Your task to perform on an android device: toggle improve location accuracy Image 0: 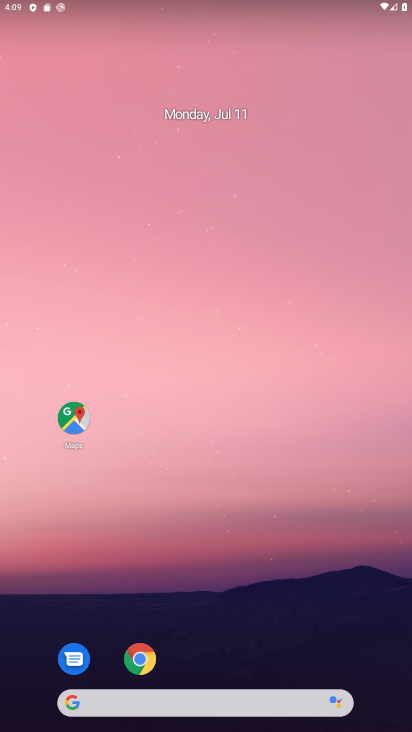
Step 0: drag from (312, 7) to (277, 664)
Your task to perform on an android device: toggle improve location accuracy Image 1: 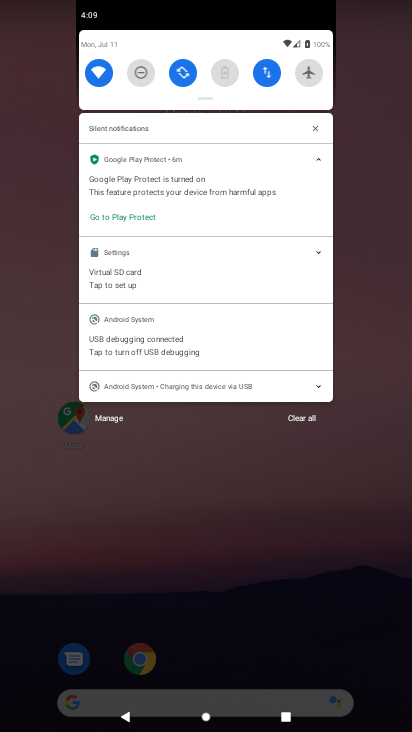
Step 1: drag from (212, 53) to (176, 658)
Your task to perform on an android device: toggle improve location accuracy Image 2: 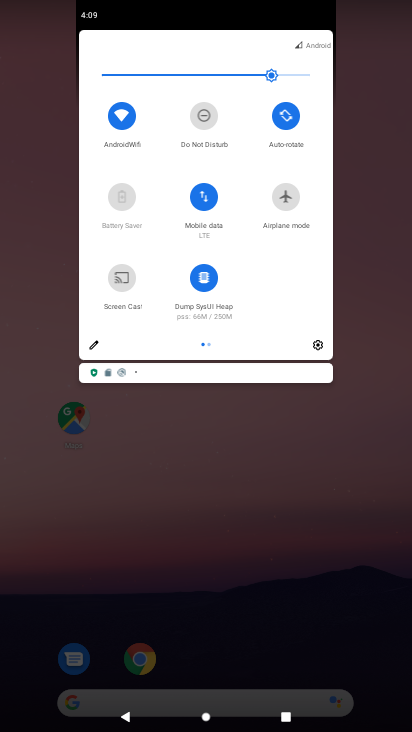
Step 2: click (322, 350)
Your task to perform on an android device: toggle improve location accuracy Image 3: 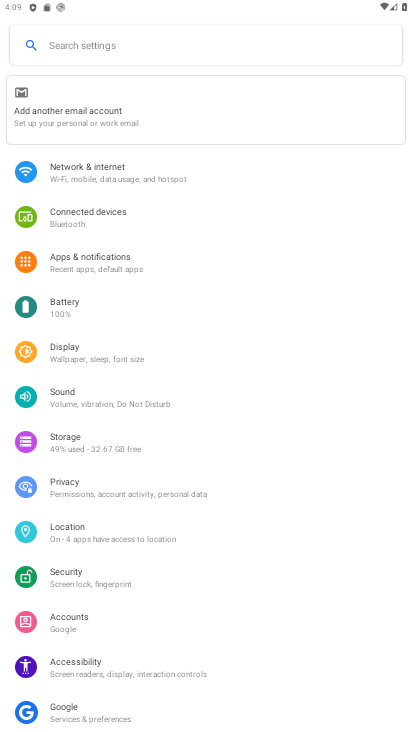
Step 3: click (80, 528)
Your task to perform on an android device: toggle improve location accuracy Image 4: 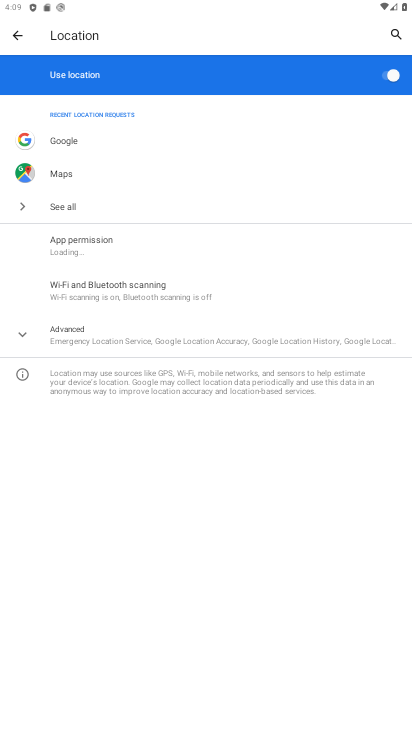
Step 4: click (131, 343)
Your task to perform on an android device: toggle improve location accuracy Image 5: 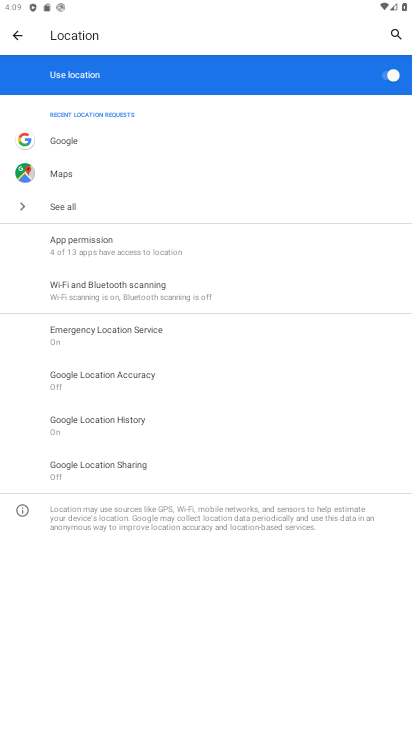
Step 5: click (148, 386)
Your task to perform on an android device: toggle improve location accuracy Image 6: 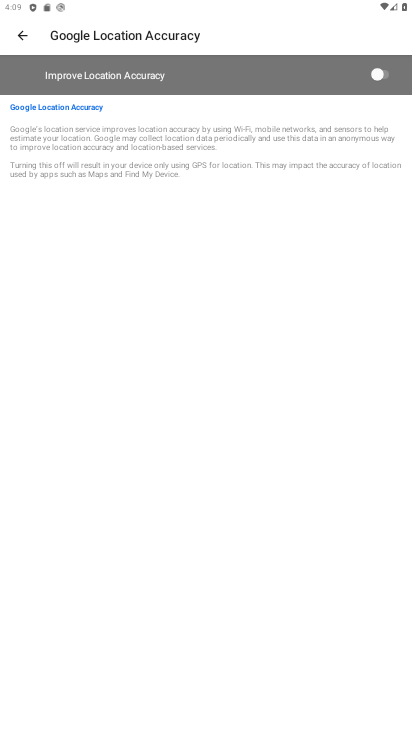
Step 6: click (382, 66)
Your task to perform on an android device: toggle improve location accuracy Image 7: 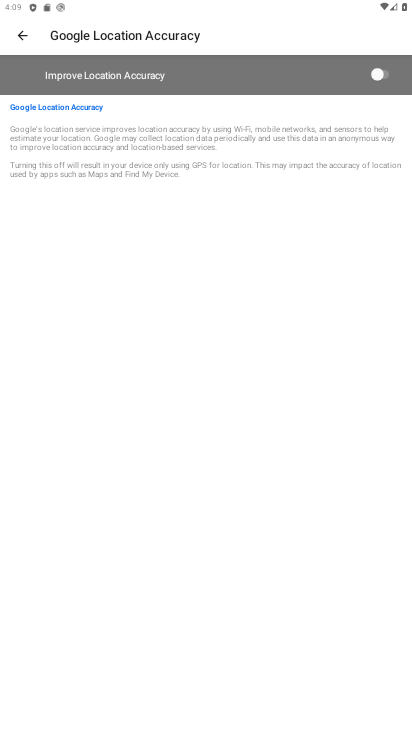
Step 7: click (382, 66)
Your task to perform on an android device: toggle improve location accuracy Image 8: 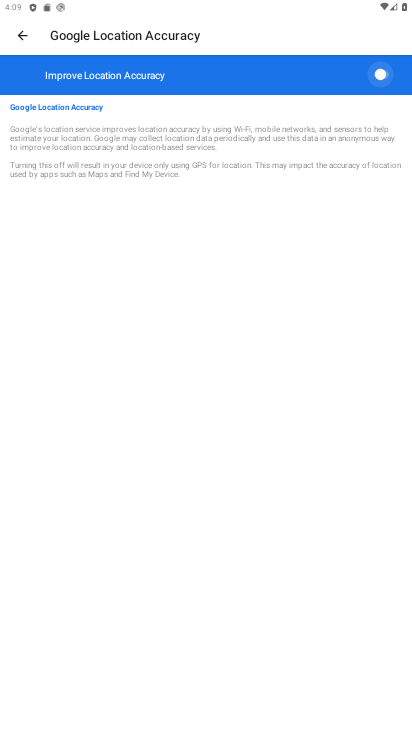
Step 8: click (382, 66)
Your task to perform on an android device: toggle improve location accuracy Image 9: 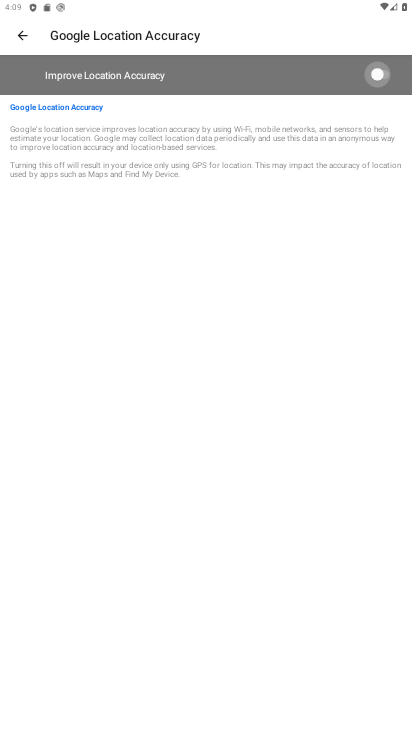
Step 9: click (382, 66)
Your task to perform on an android device: toggle improve location accuracy Image 10: 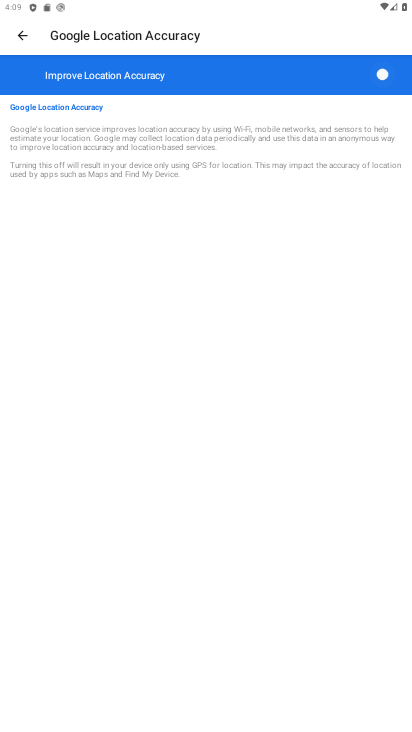
Step 10: click (382, 66)
Your task to perform on an android device: toggle improve location accuracy Image 11: 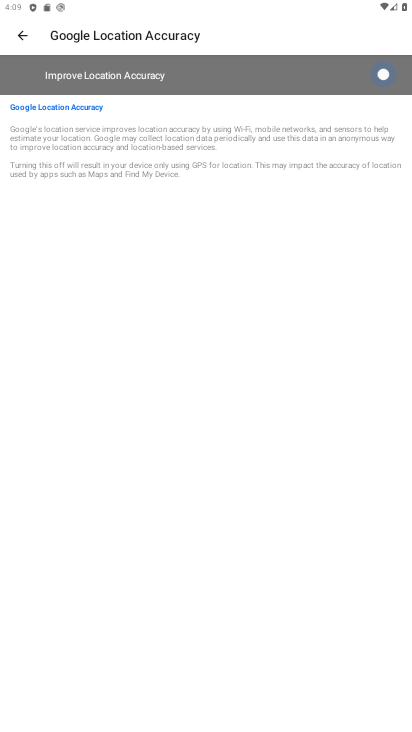
Step 11: click (382, 66)
Your task to perform on an android device: toggle improve location accuracy Image 12: 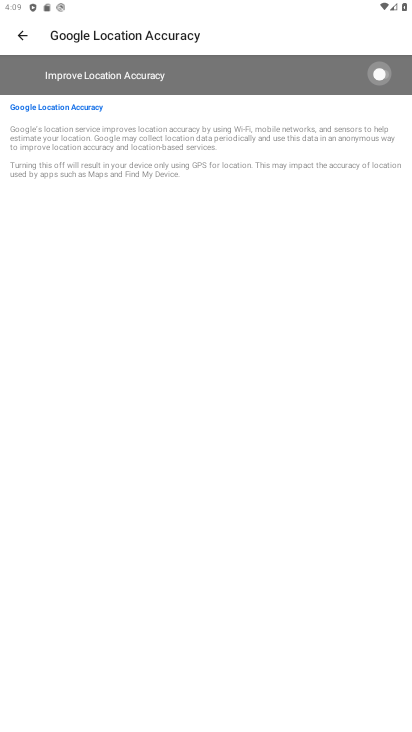
Step 12: click (382, 66)
Your task to perform on an android device: toggle improve location accuracy Image 13: 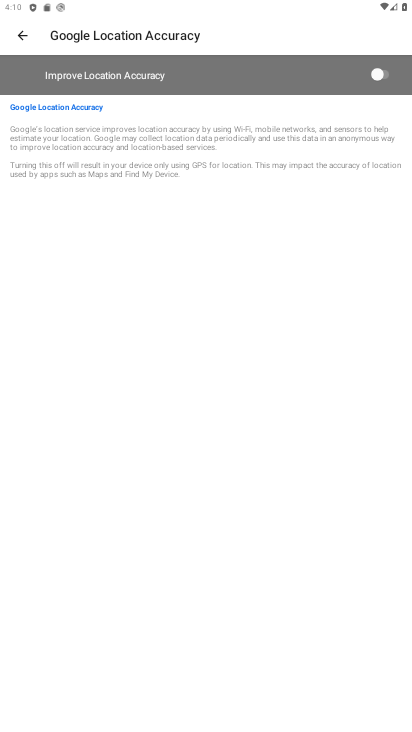
Step 13: task complete